Your task to perform on an android device: What's the weather today? Image 0: 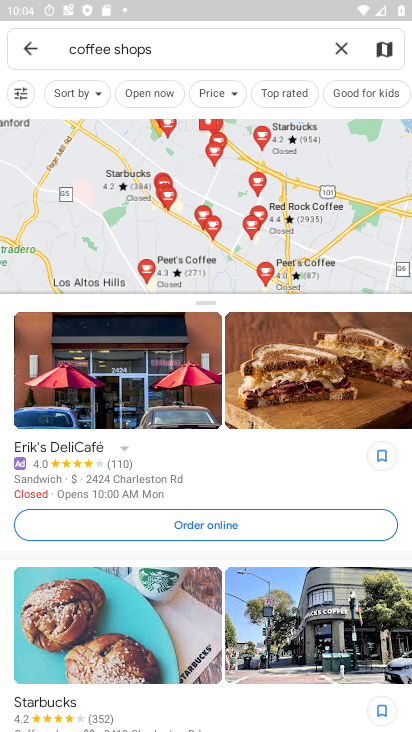
Step 0: press home button
Your task to perform on an android device: What's the weather today? Image 1: 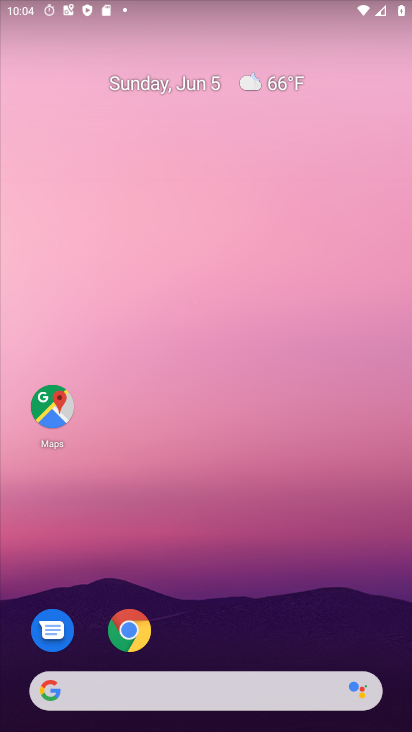
Step 1: drag from (233, 728) to (224, 77)
Your task to perform on an android device: What's the weather today? Image 2: 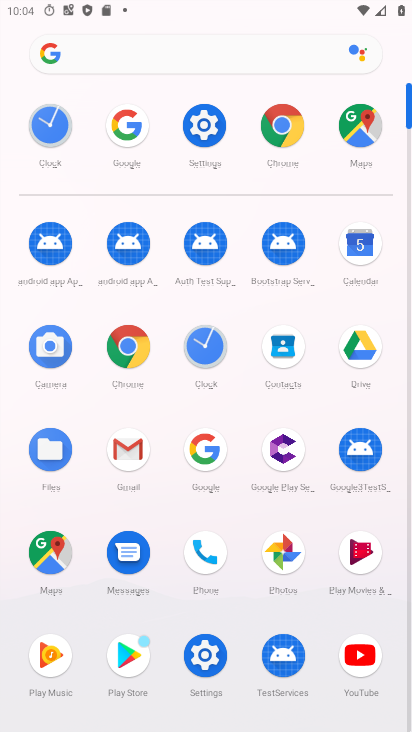
Step 2: click (201, 445)
Your task to perform on an android device: What's the weather today? Image 3: 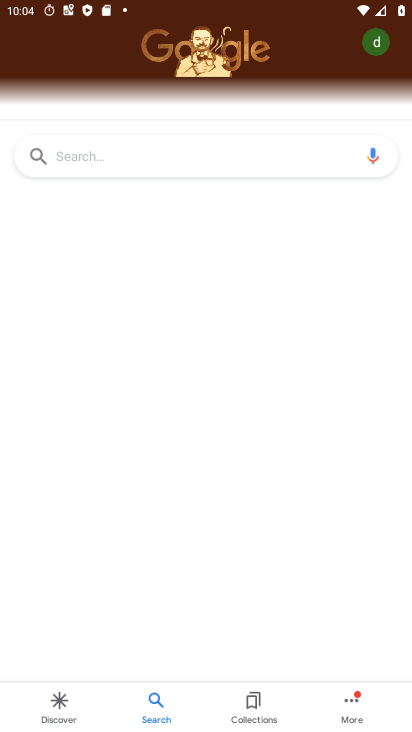
Step 3: click (187, 157)
Your task to perform on an android device: What's the weather today? Image 4: 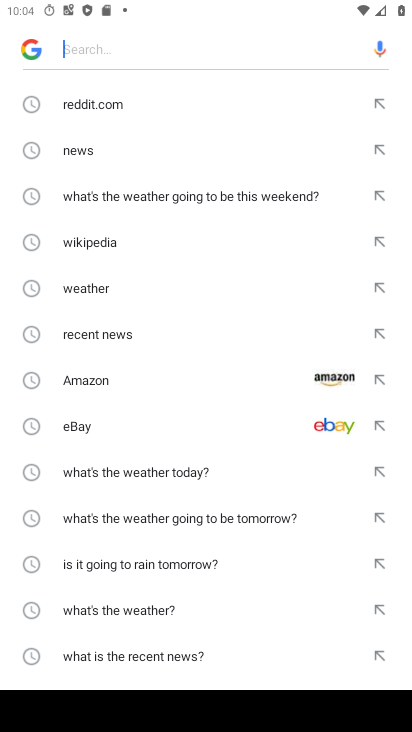
Step 4: click (79, 284)
Your task to perform on an android device: What's the weather today? Image 5: 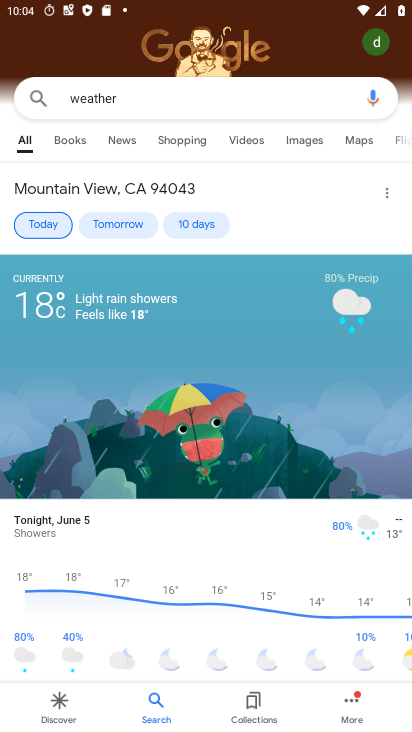
Step 5: click (40, 224)
Your task to perform on an android device: What's the weather today? Image 6: 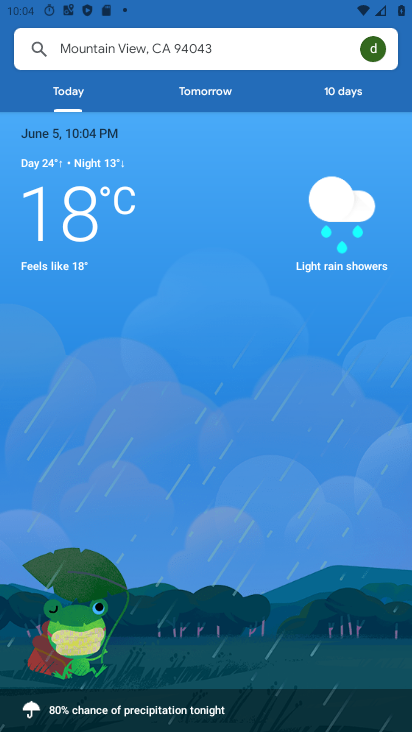
Step 6: task complete